Your task to perform on an android device: empty trash in the gmail app Image 0: 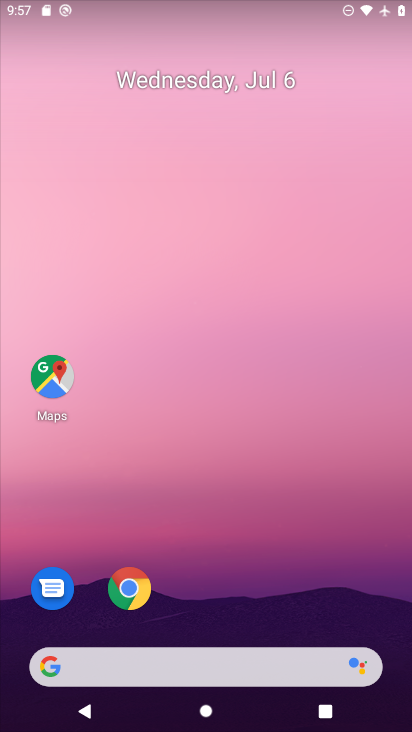
Step 0: drag from (193, 663) to (358, 67)
Your task to perform on an android device: empty trash in the gmail app Image 1: 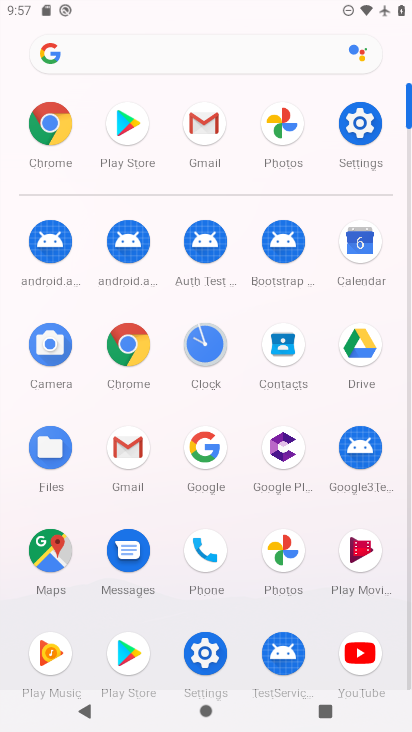
Step 1: click (197, 134)
Your task to perform on an android device: empty trash in the gmail app Image 2: 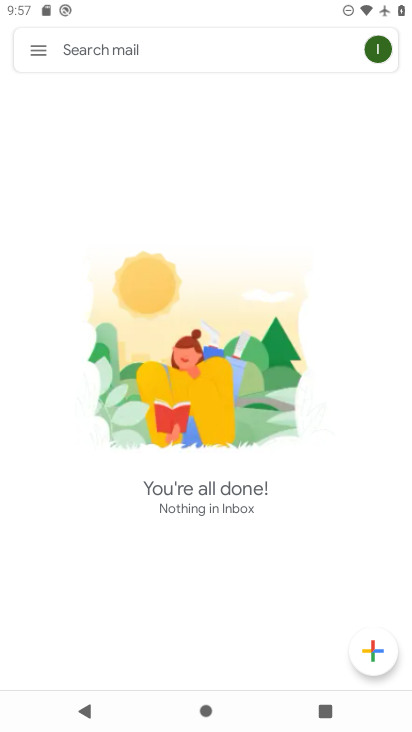
Step 2: click (41, 53)
Your task to perform on an android device: empty trash in the gmail app Image 3: 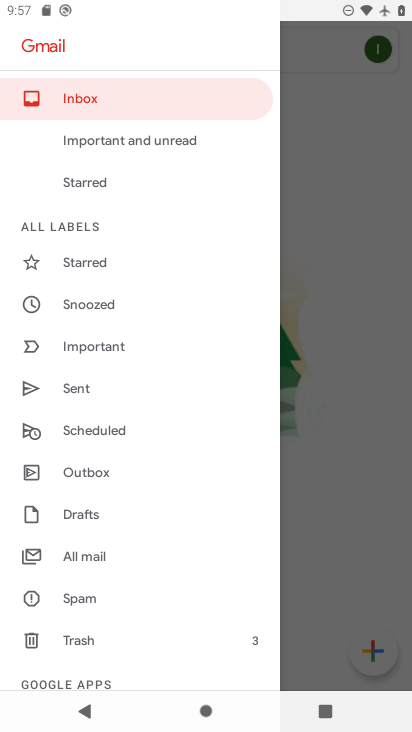
Step 3: click (86, 640)
Your task to perform on an android device: empty trash in the gmail app Image 4: 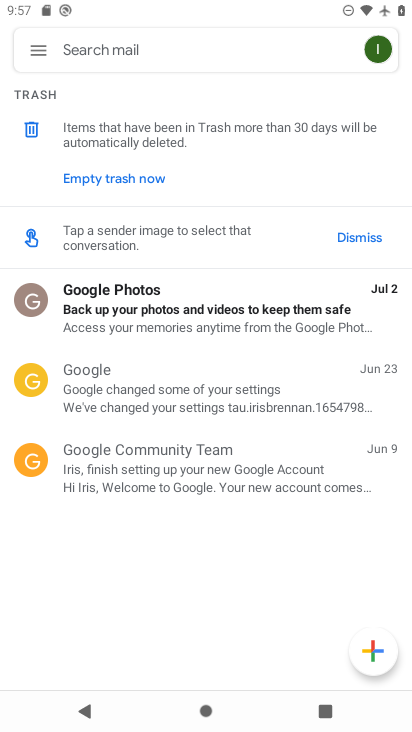
Step 4: click (101, 178)
Your task to perform on an android device: empty trash in the gmail app Image 5: 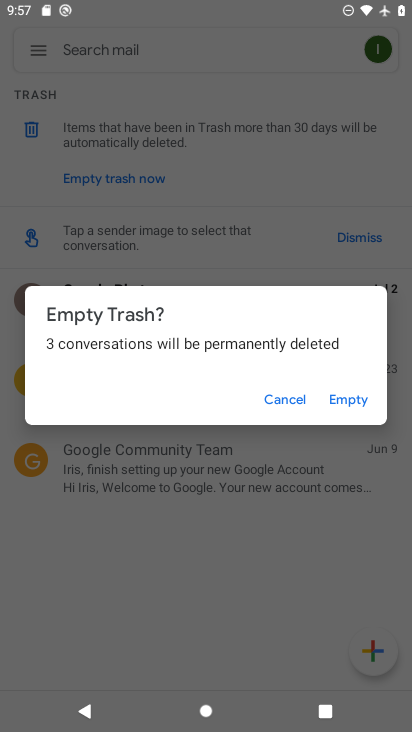
Step 5: click (349, 399)
Your task to perform on an android device: empty trash in the gmail app Image 6: 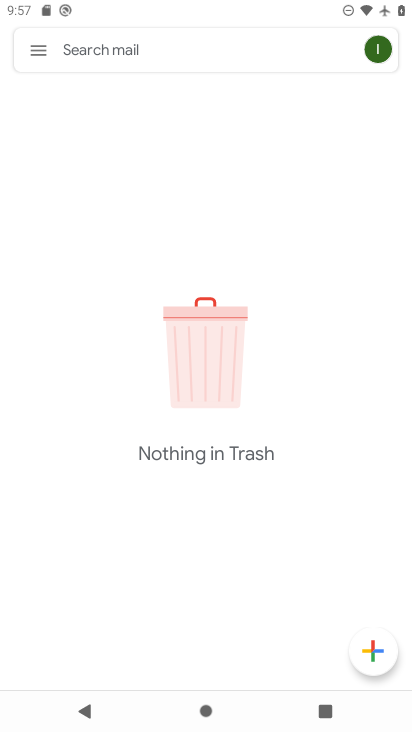
Step 6: task complete